Your task to perform on an android device: turn off location history Image 0: 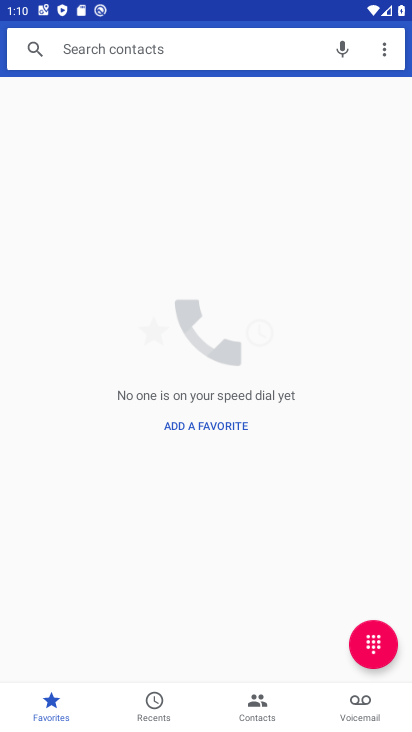
Step 0: press home button
Your task to perform on an android device: turn off location history Image 1: 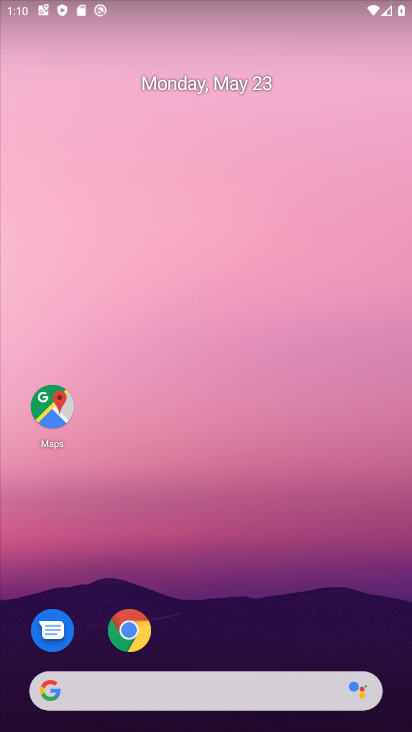
Step 1: drag from (349, 594) to (340, 133)
Your task to perform on an android device: turn off location history Image 2: 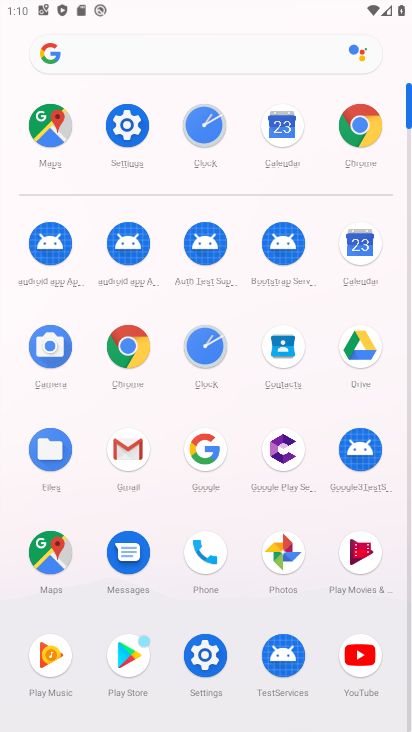
Step 2: click (204, 666)
Your task to perform on an android device: turn off location history Image 3: 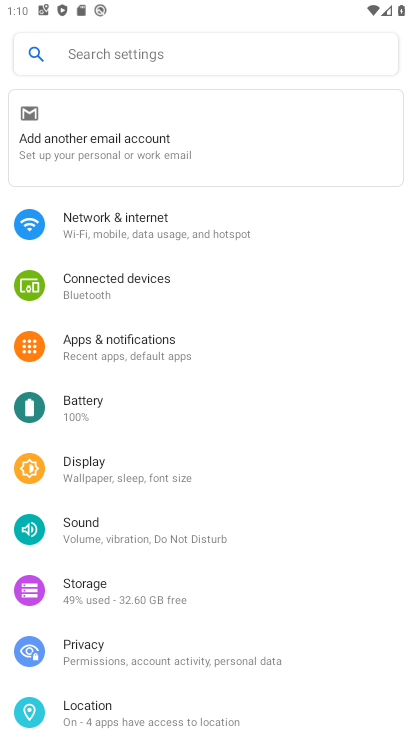
Step 3: drag from (166, 649) to (214, 424)
Your task to perform on an android device: turn off location history Image 4: 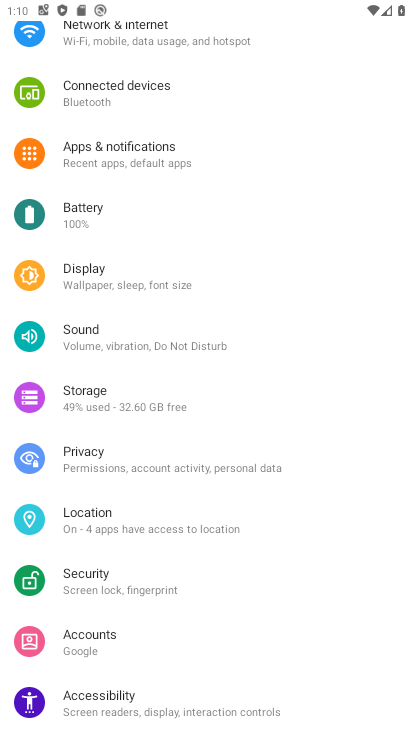
Step 4: click (117, 522)
Your task to perform on an android device: turn off location history Image 5: 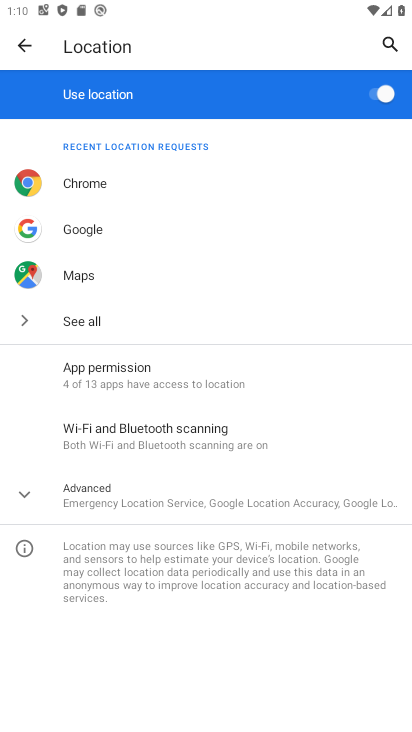
Step 5: click (132, 505)
Your task to perform on an android device: turn off location history Image 6: 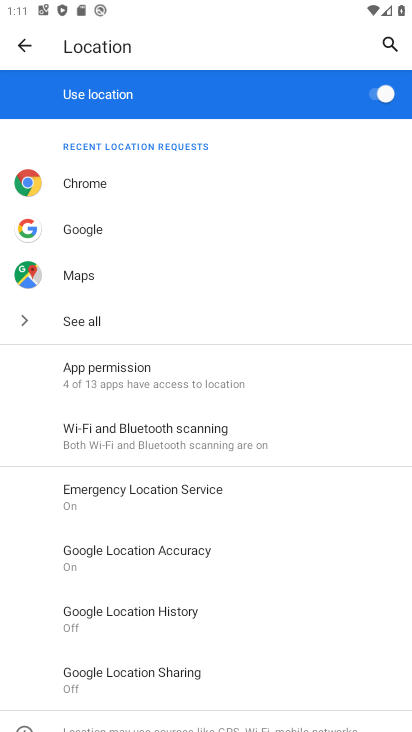
Step 6: click (142, 612)
Your task to perform on an android device: turn off location history Image 7: 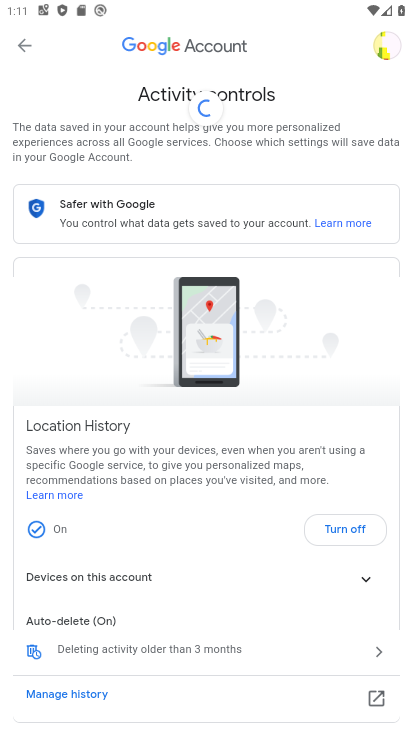
Step 7: task complete